Your task to perform on an android device: Is it going to rain today? Image 0: 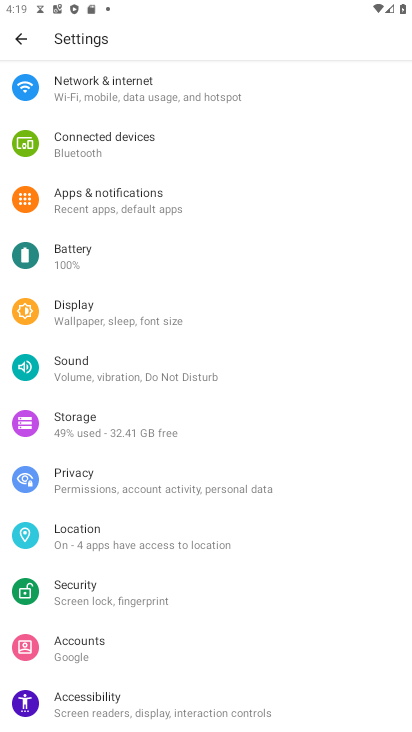
Step 0: press home button
Your task to perform on an android device: Is it going to rain today? Image 1: 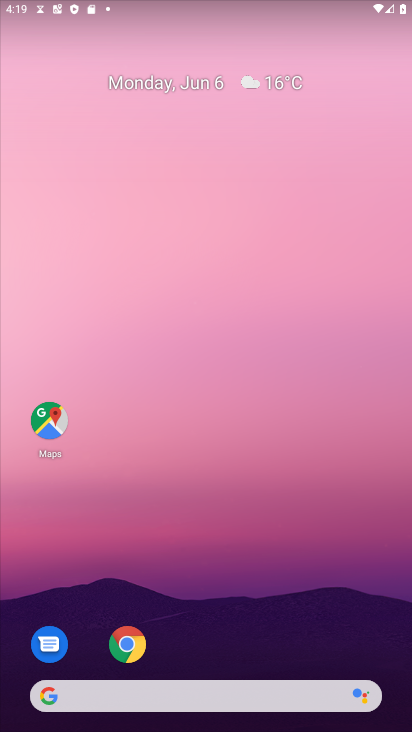
Step 1: click (171, 694)
Your task to perform on an android device: Is it going to rain today? Image 2: 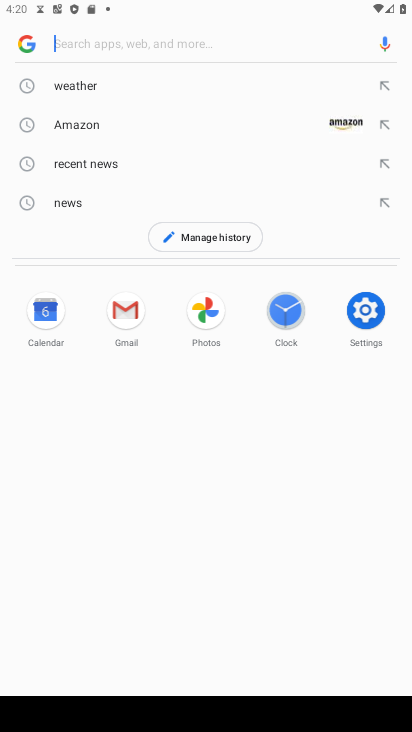
Step 2: type "weather today"
Your task to perform on an android device: Is it going to rain today? Image 3: 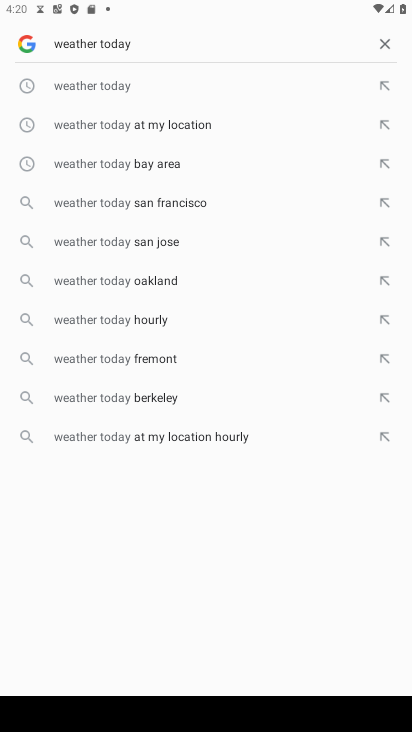
Step 3: click (111, 95)
Your task to perform on an android device: Is it going to rain today? Image 4: 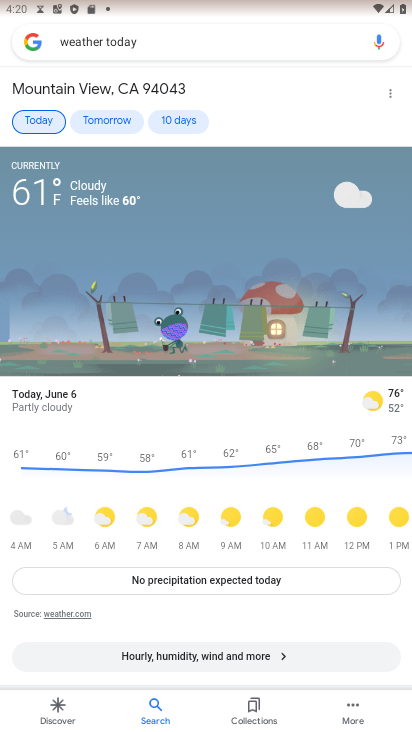
Step 4: click (278, 663)
Your task to perform on an android device: Is it going to rain today? Image 5: 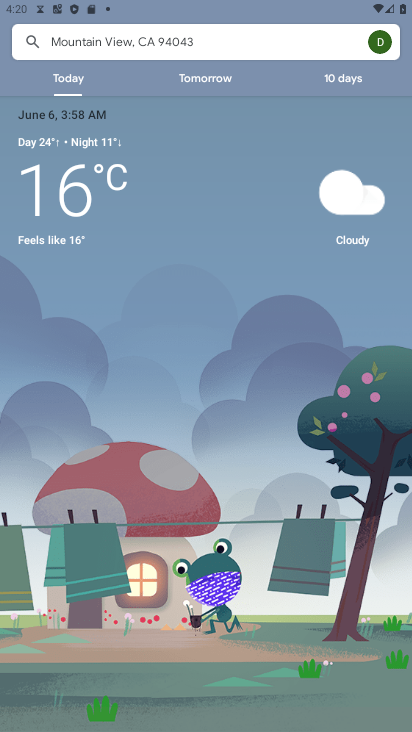
Step 5: task complete